Your task to perform on an android device: Go to network settings Image 0: 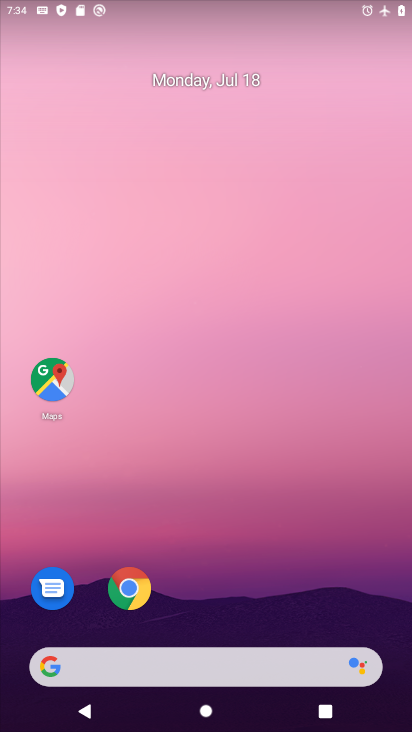
Step 0: drag from (208, 617) to (229, 22)
Your task to perform on an android device: Go to network settings Image 1: 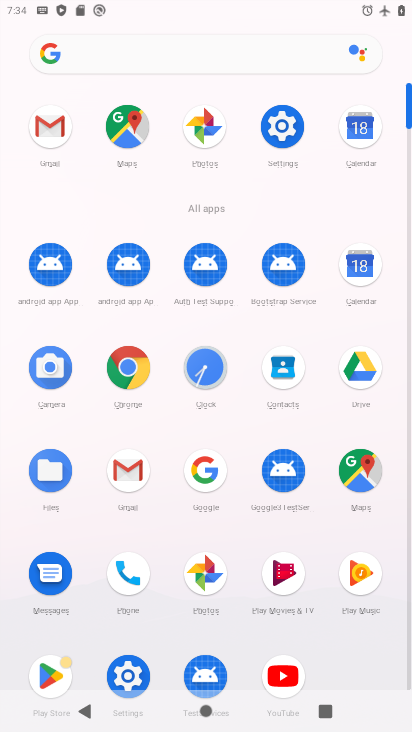
Step 1: click (281, 132)
Your task to perform on an android device: Go to network settings Image 2: 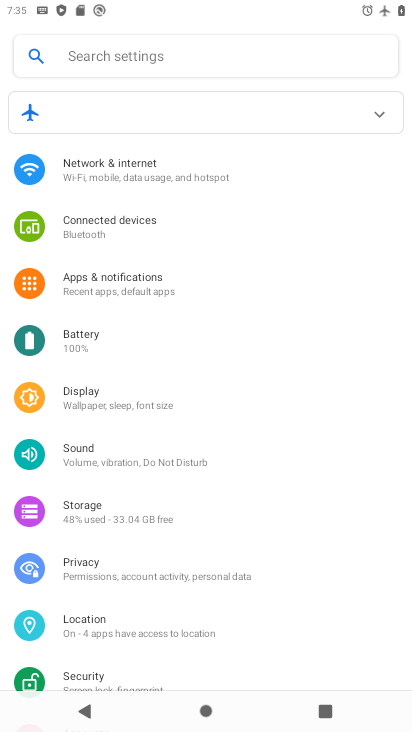
Step 2: click (139, 188)
Your task to perform on an android device: Go to network settings Image 3: 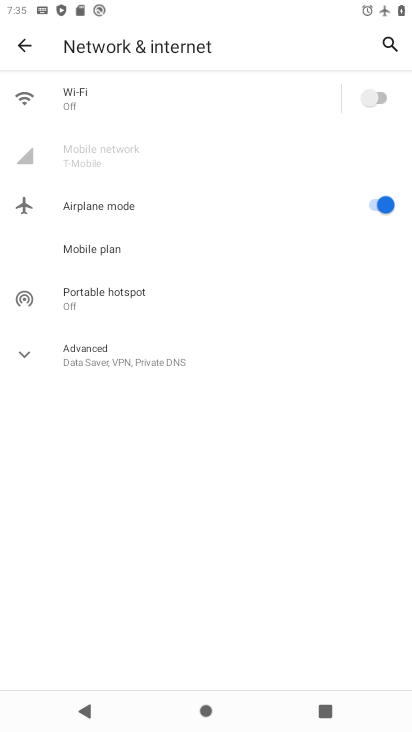
Step 3: task complete